Your task to perform on an android device: turn pop-ups off in chrome Image 0: 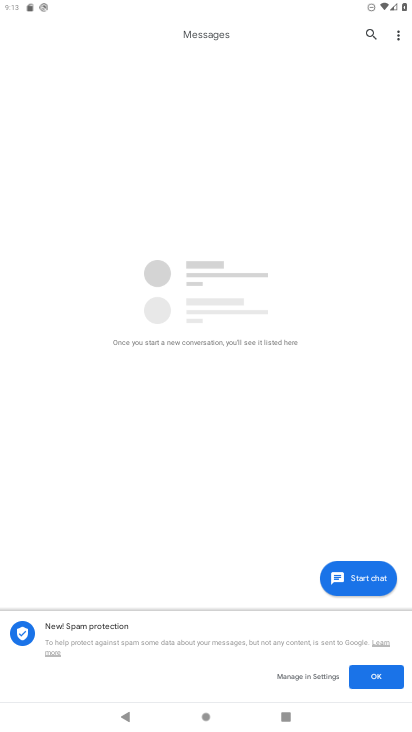
Step 0: press home button
Your task to perform on an android device: turn pop-ups off in chrome Image 1: 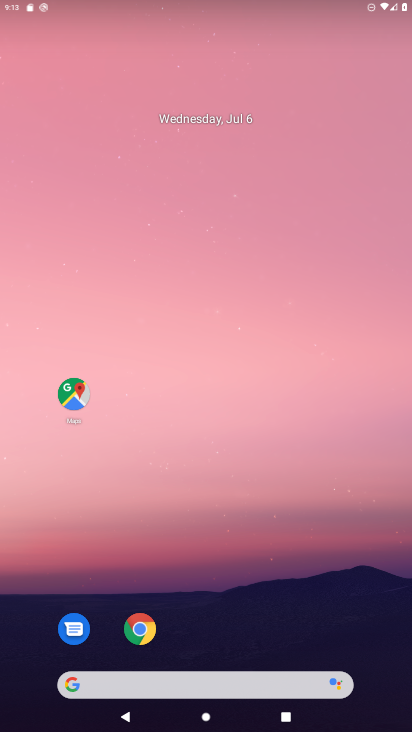
Step 1: drag from (291, 611) to (338, 13)
Your task to perform on an android device: turn pop-ups off in chrome Image 2: 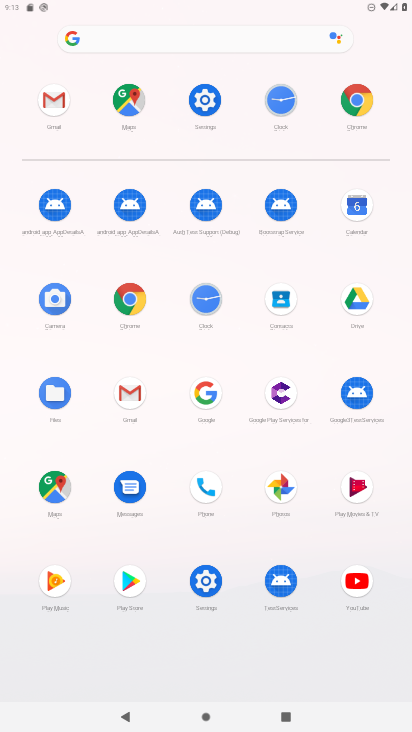
Step 2: click (136, 307)
Your task to perform on an android device: turn pop-ups off in chrome Image 3: 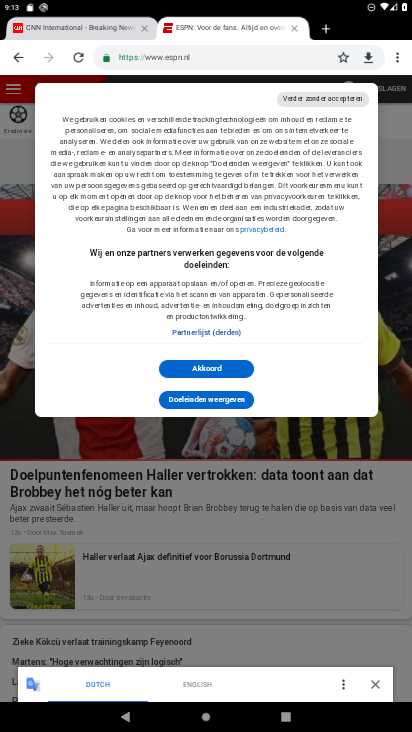
Step 3: click (395, 56)
Your task to perform on an android device: turn pop-ups off in chrome Image 4: 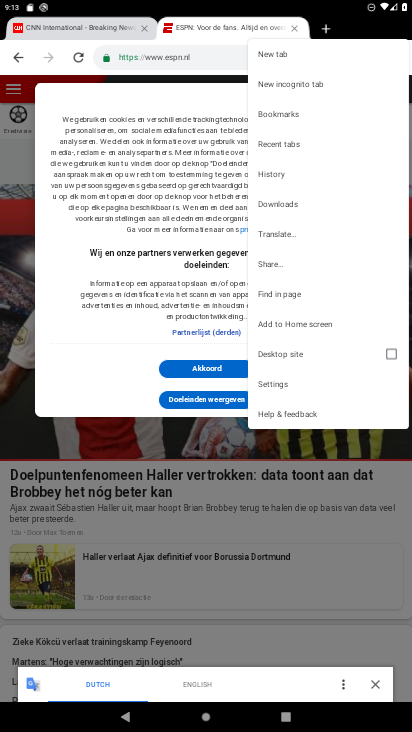
Step 4: click (291, 382)
Your task to perform on an android device: turn pop-ups off in chrome Image 5: 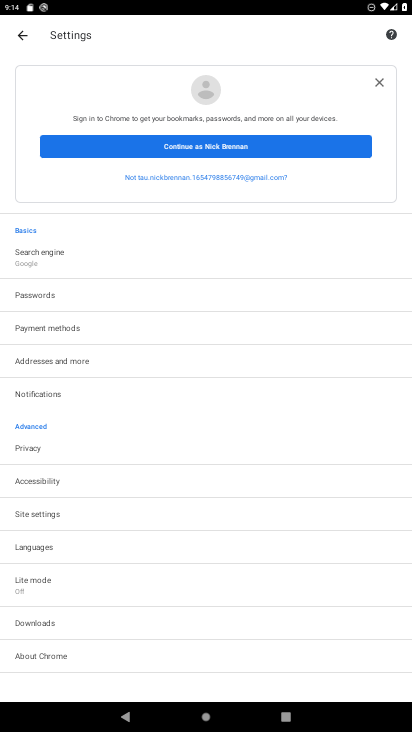
Step 5: click (54, 516)
Your task to perform on an android device: turn pop-ups off in chrome Image 6: 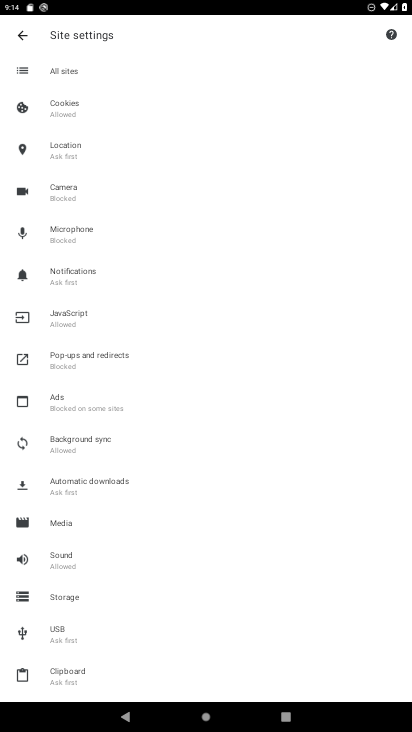
Step 6: click (132, 362)
Your task to perform on an android device: turn pop-ups off in chrome Image 7: 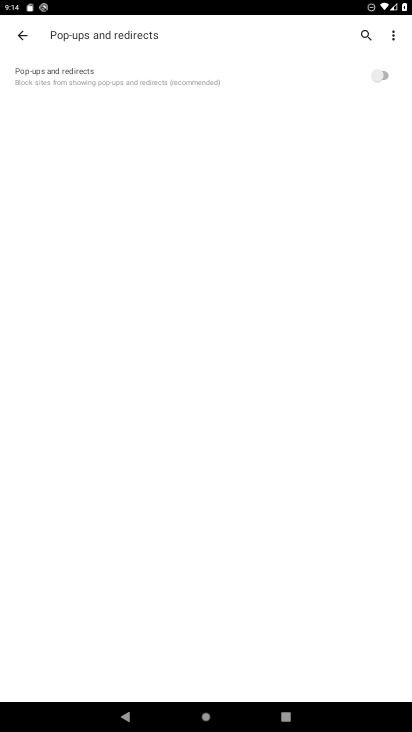
Step 7: task complete